Your task to perform on an android device: change the clock display to show seconds Image 0: 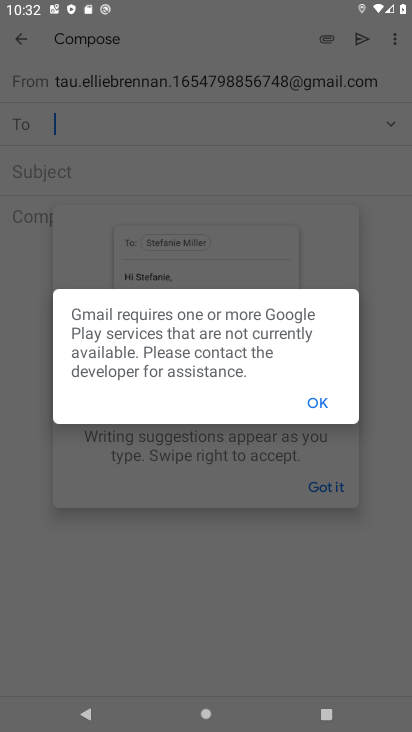
Step 0: press home button
Your task to perform on an android device: change the clock display to show seconds Image 1: 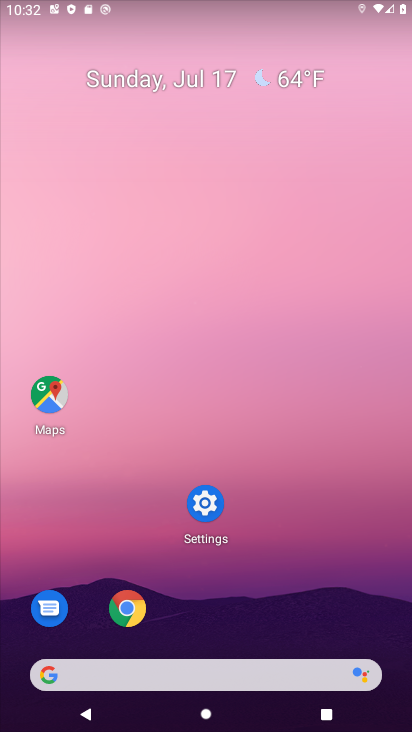
Step 1: drag from (391, 656) to (324, 76)
Your task to perform on an android device: change the clock display to show seconds Image 2: 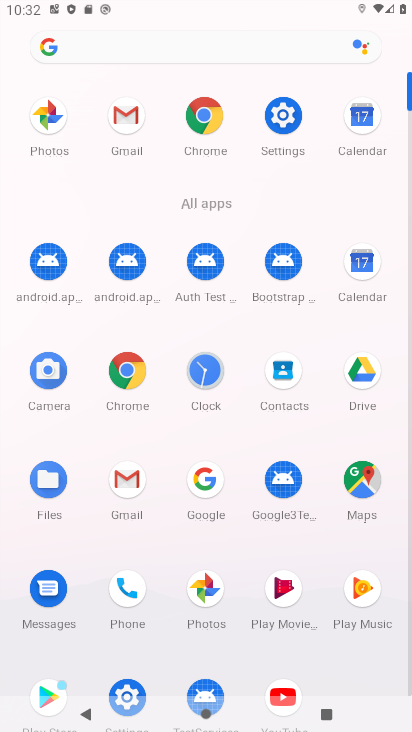
Step 2: click (203, 371)
Your task to perform on an android device: change the clock display to show seconds Image 3: 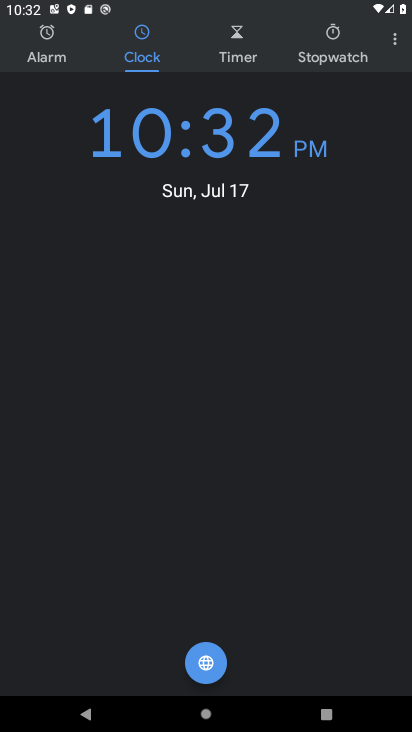
Step 3: click (389, 33)
Your task to perform on an android device: change the clock display to show seconds Image 4: 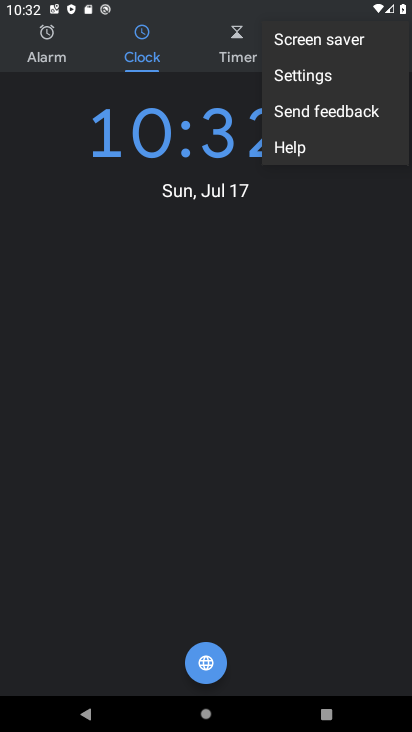
Step 4: click (334, 76)
Your task to perform on an android device: change the clock display to show seconds Image 5: 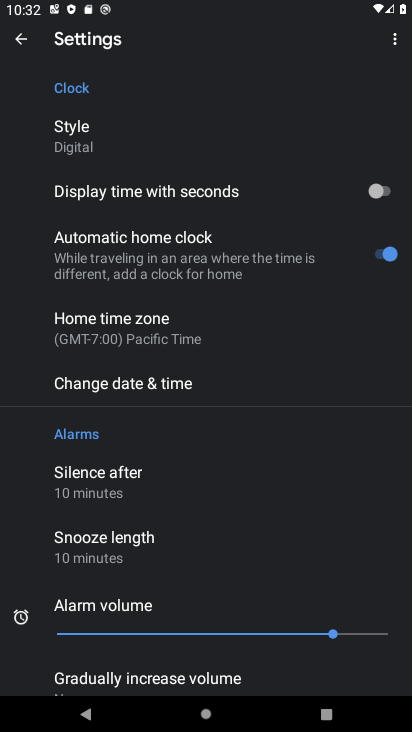
Step 5: click (385, 191)
Your task to perform on an android device: change the clock display to show seconds Image 6: 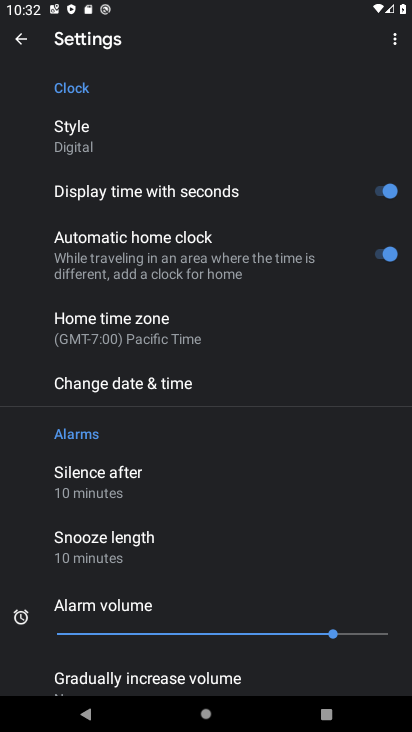
Step 6: task complete